Your task to perform on an android device: Open network settings Image 0: 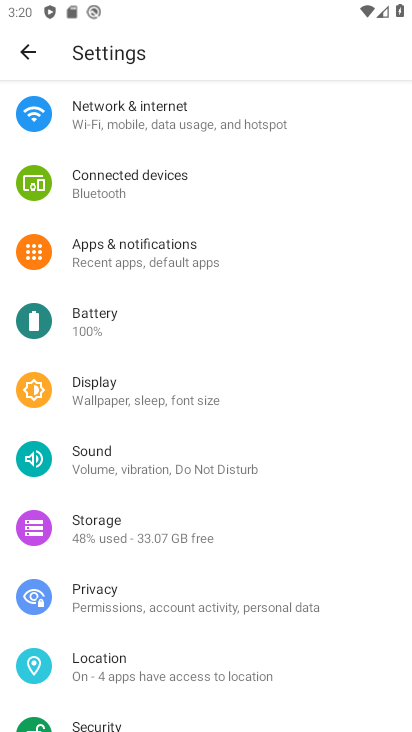
Step 0: click (148, 117)
Your task to perform on an android device: Open network settings Image 1: 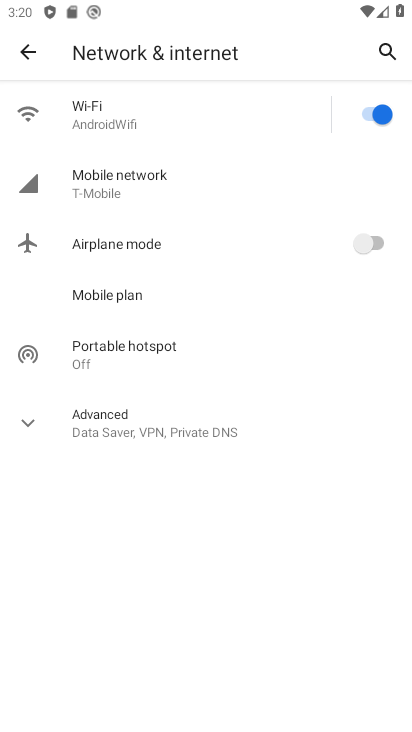
Step 1: task complete